Your task to perform on an android device: turn off wifi Image 0: 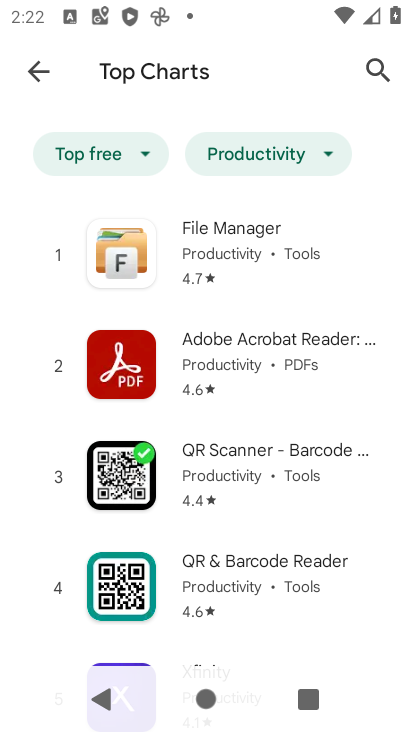
Step 0: press home button
Your task to perform on an android device: turn off wifi Image 1: 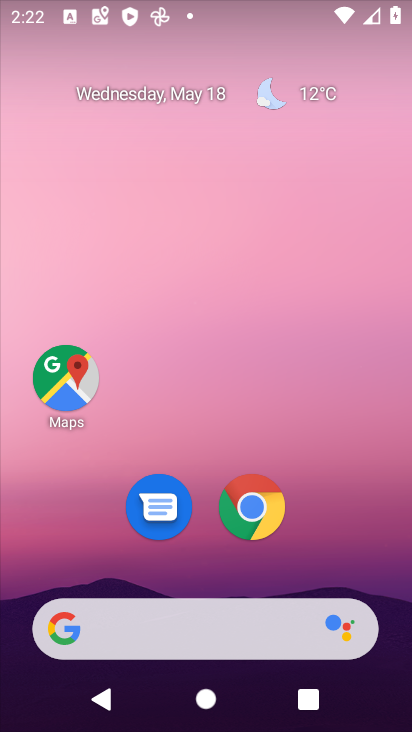
Step 1: drag from (405, 606) to (305, 62)
Your task to perform on an android device: turn off wifi Image 2: 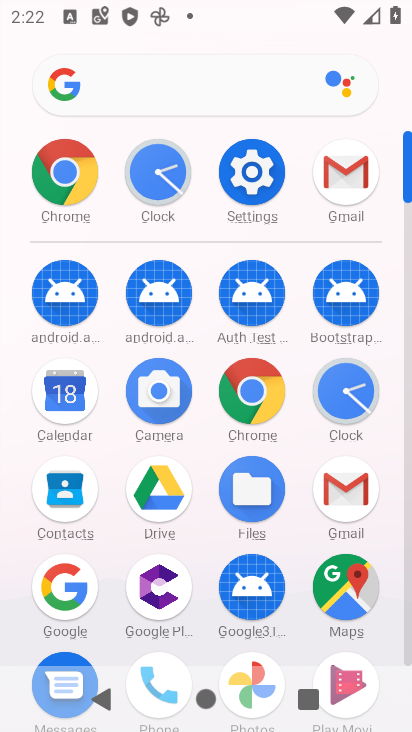
Step 2: click (410, 652)
Your task to perform on an android device: turn off wifi Image 3: 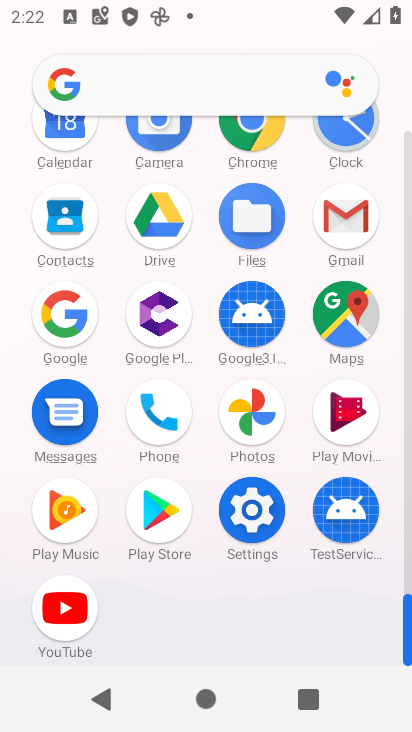
Step 3: click (250, 509)
Your task to perform on an android device: turn off wifi Image 4: 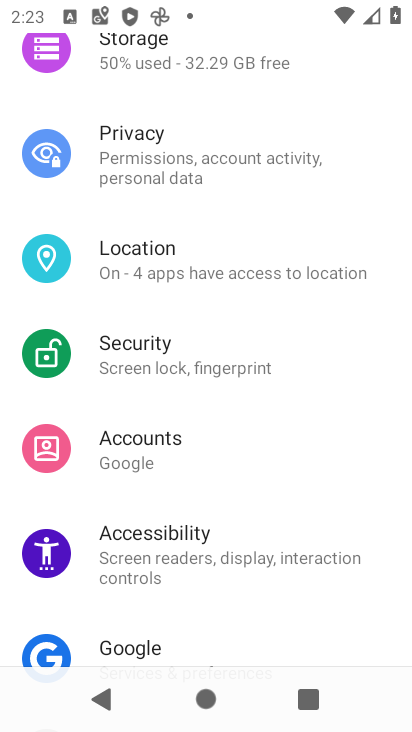
Step 4: drag from (374, 96) to (335, 520)
Your task to perform on an android device: turn off wifi Image 5: 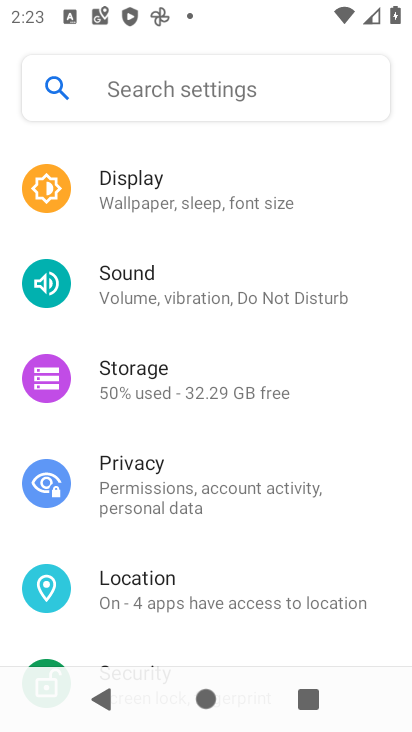
Step 5: drag from (354, 165) to (341, 576)
Your task to perform on an android device: turn off wifi Image 6: 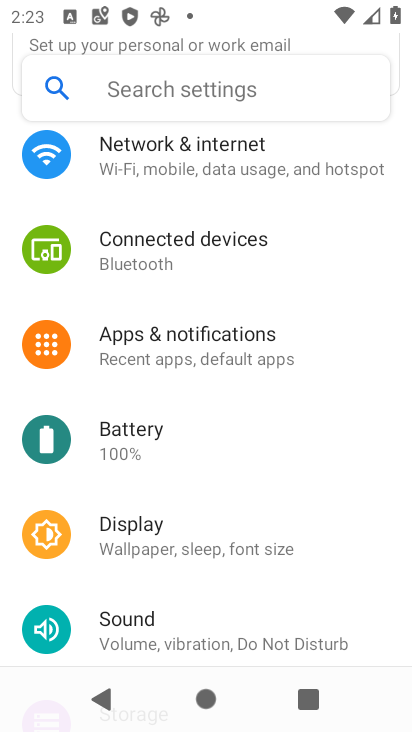
Step 6: drag from (353, 209) to (336, 416)
Your task to perform on an android device: turn off wifi Image 7: 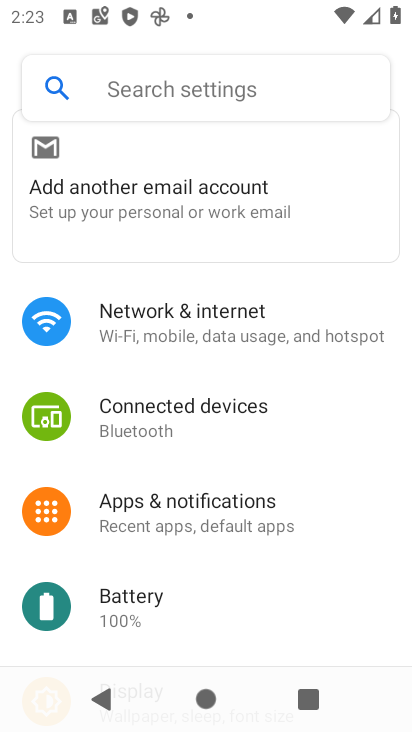
Step 7: click (164, 327)
Your task to perform on an android device: turn off wifi Image 8: 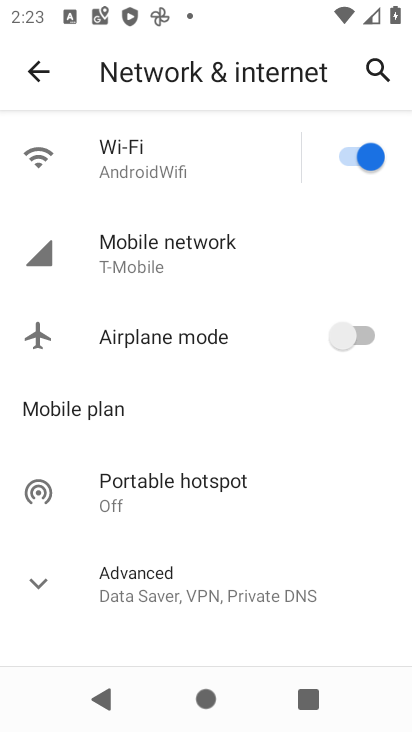
Step 8: click (346, 159)
Your task to perform on an android device: turn off wifi Image 9: 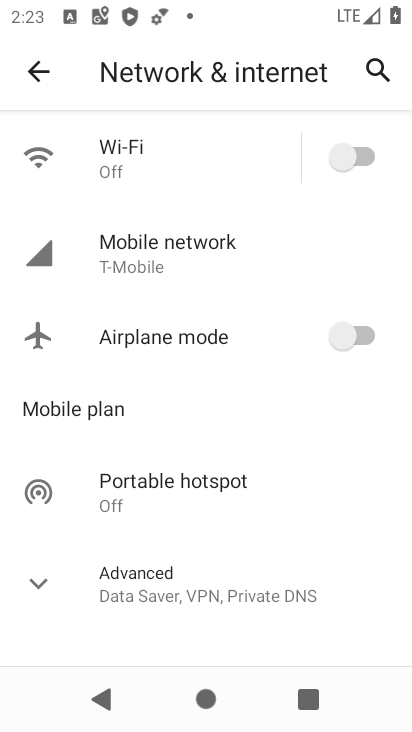
Step 9: task complete